Your task to perform on an android device: open app "YouTube Kids" (install if not already installed) Image 0: 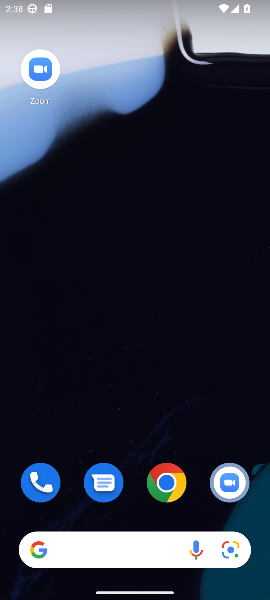
Step 0: drag from (135, 460) to (132, 68)
Your task to perform on an android device: open app "YouTube Kids" (install if not already installed) Image 1: 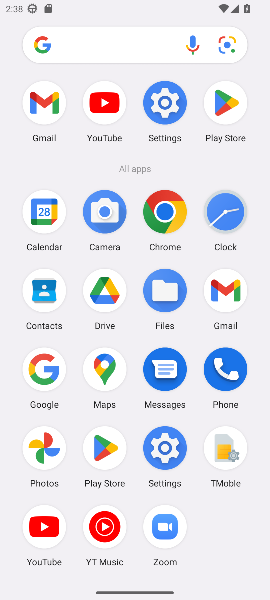
Step 1: click (217, 94)
Your task to perform on an android device: open app "YouTube Kids" (install if not already installed) Image 2: 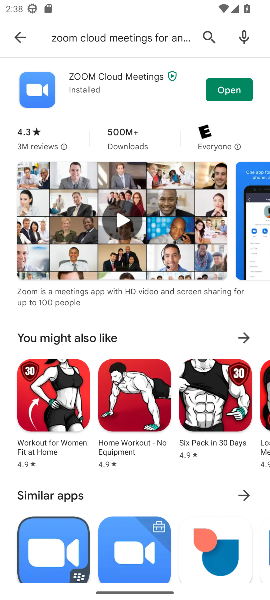
Step 2: click (17, 32)
Your task to perform on an android device: open app "YouTube Kids" (install if not already installed) Image 3: 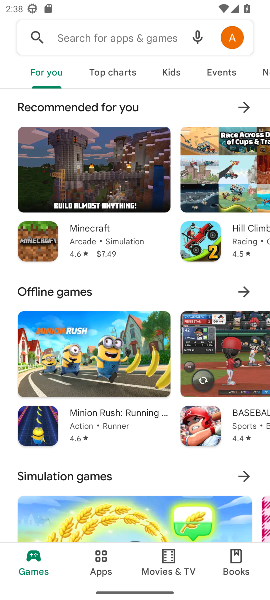
Step 3: click (140, 34)
Your task to perform on an android device: open app "YouTube Kids" (install if not already installed) Image 4: 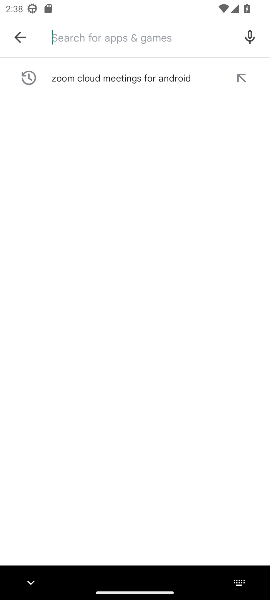
Step 4: type "youtube kids"
Your task to perform on an android device: open app "YouTube Kids" (install if not already installed) Image 5: 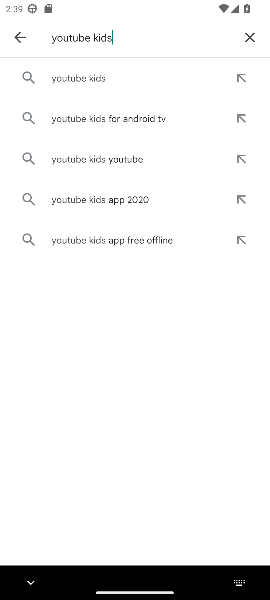
Step 5: click (78, 84)
Your task to perform on an android device: open app "YouTube Kids" (install if not already installed) Image 6: 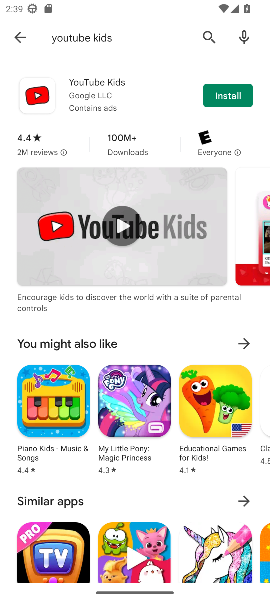
Step 6: click (237, 95)
Your task to perform on an android device: open app "YouTube Kids" (install if not already installed) Image 7: 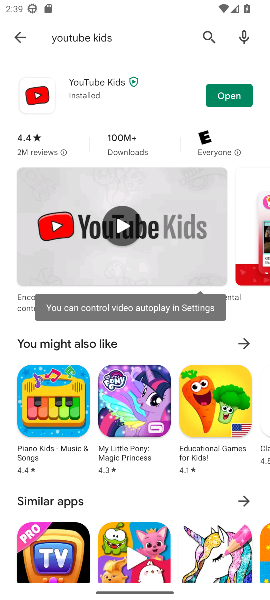
Step 7: click (237, 95)
Your task to perform on an android device: open app "YouTube Kids" (install if not already installed) Image 8: 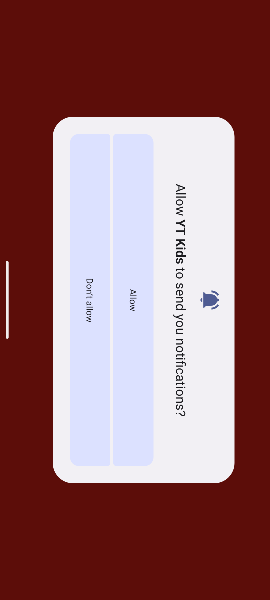
Step 8: click (127, 301)
Your task to perform on an android device: open app "YouTube Kids" (install if not already installed) Image 9: 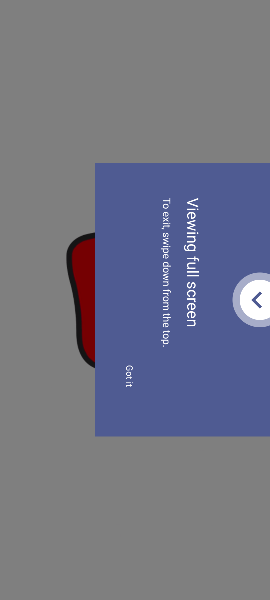
Step 9: click (127, 379)
Your task to perform on an android device: open app "YouTube Kids" (install if not already installed) Image 10: 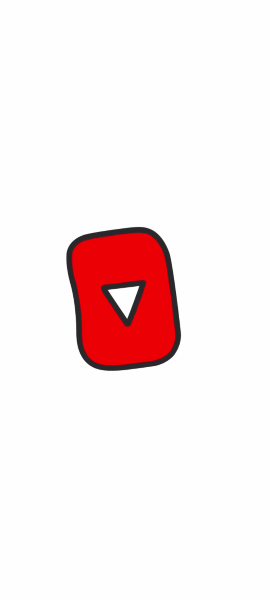
Step 10: task complete